Your task to perform on an android device: uninstall "Calculator" Image 0: 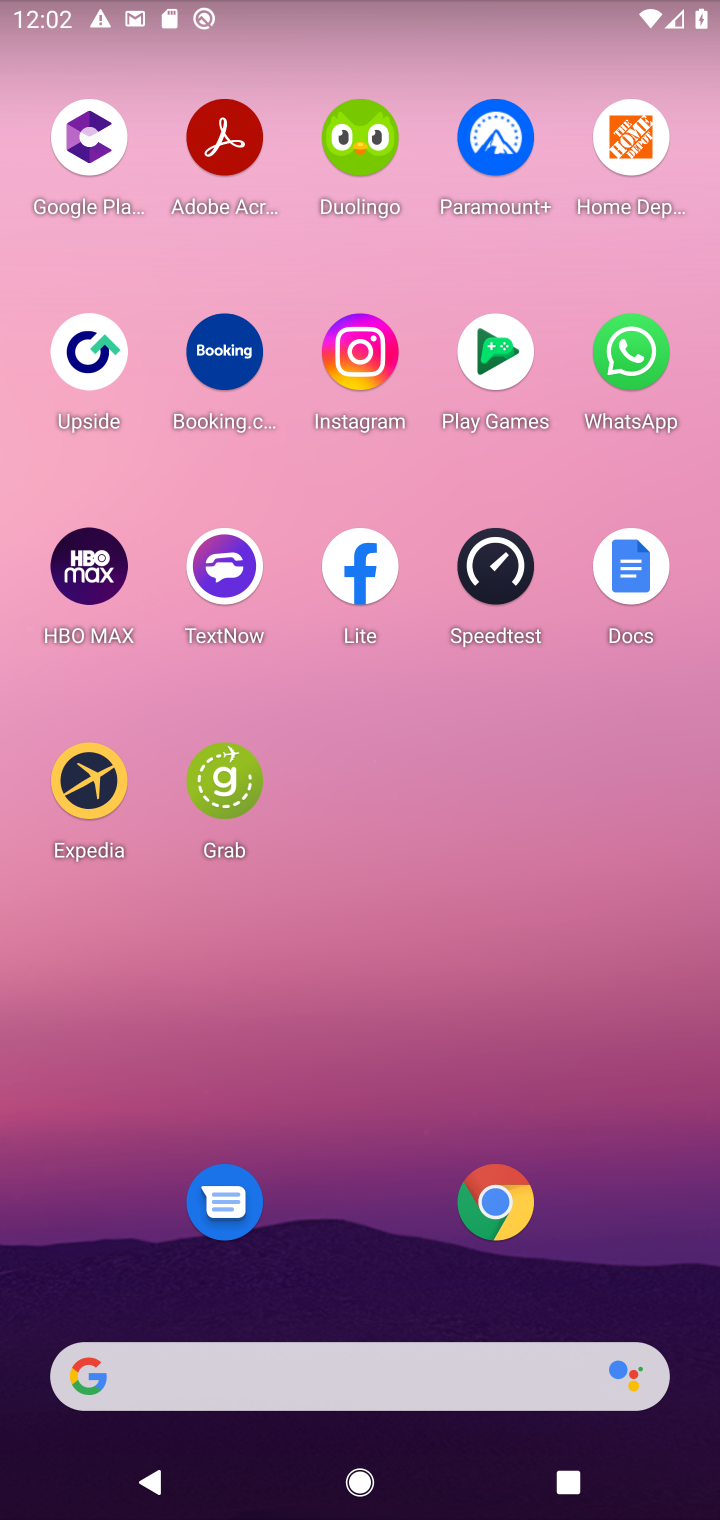
Step 0: drag from (387, 902) to (389, 113)
Your task to perform on an android device: uninstall "Calculator" Image 1: 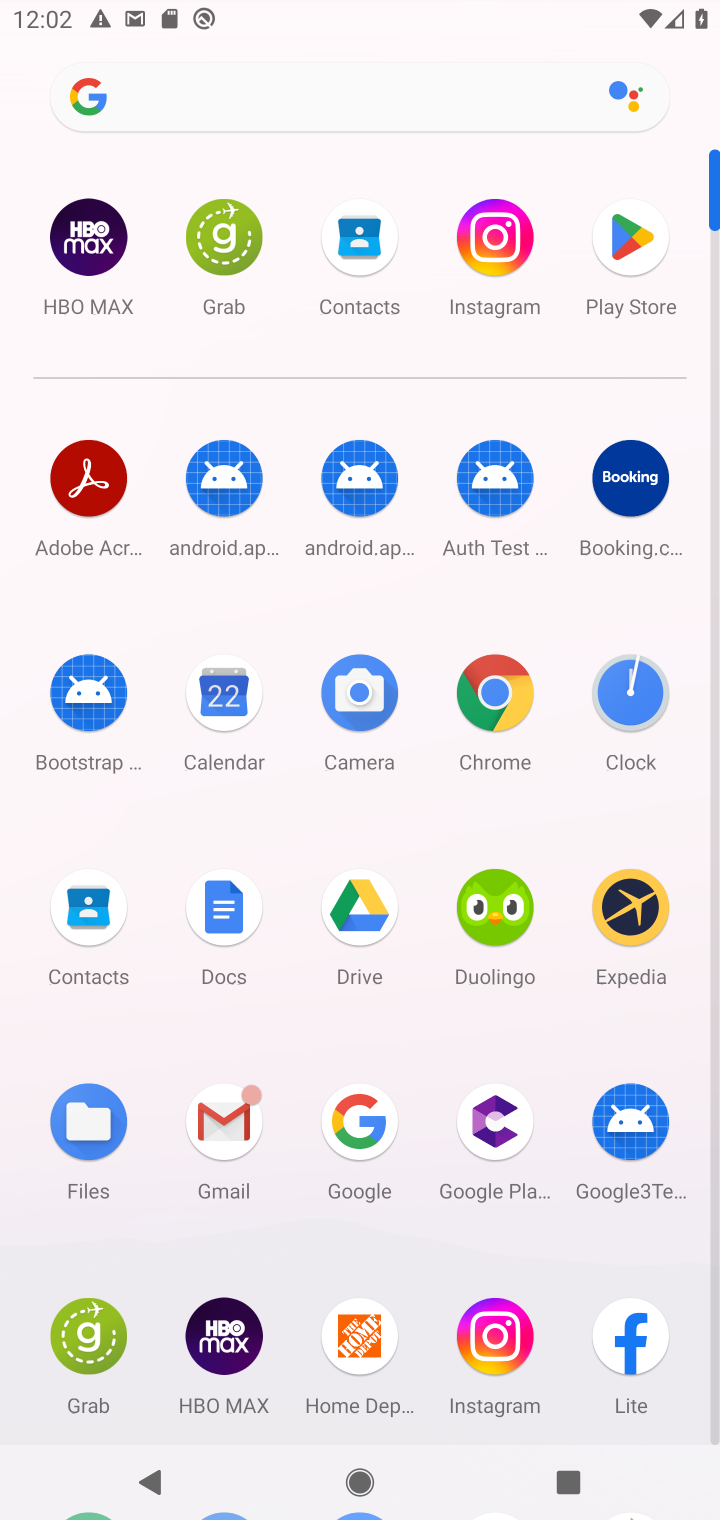
Step 1: click (629, 241)
Your task to perform on an android device: uninstall "Calculator" Image 2: 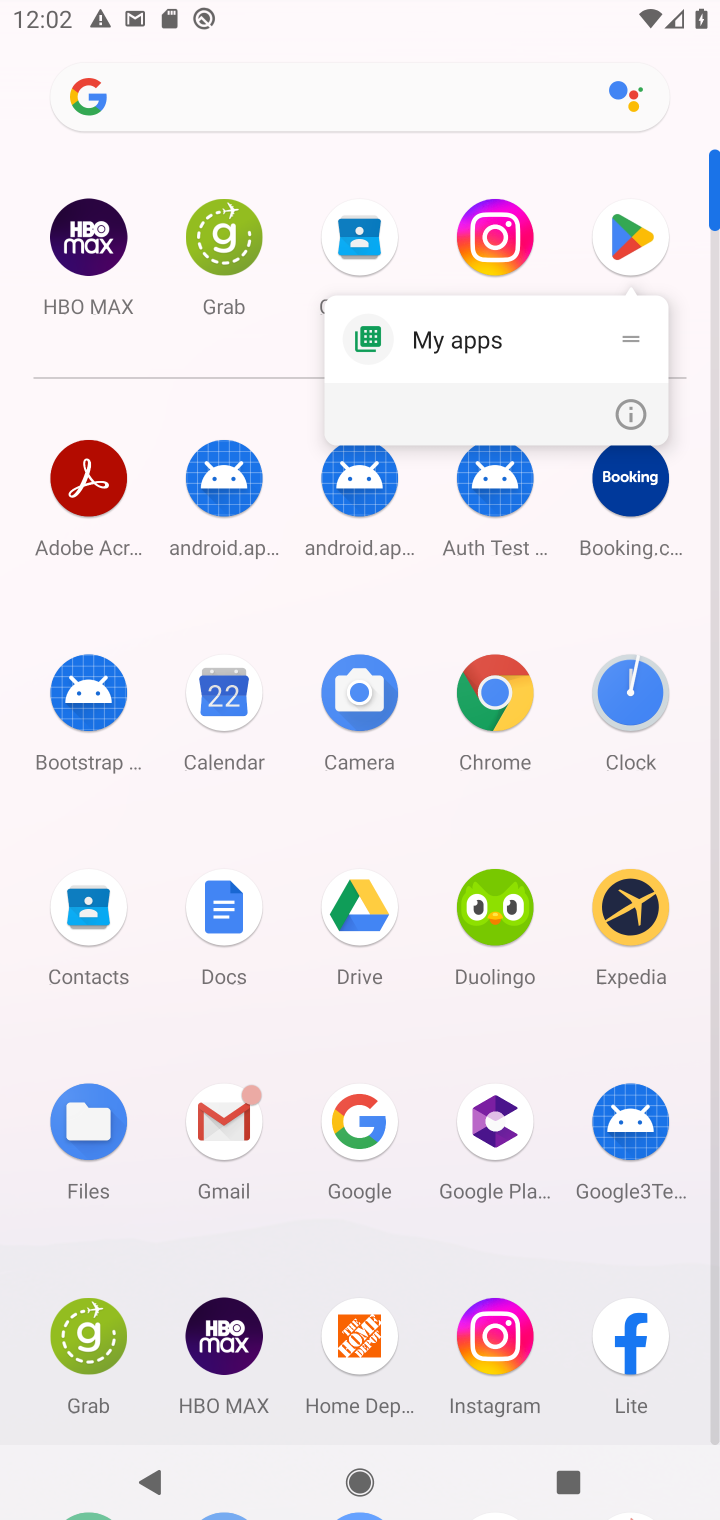
Step 2: click (626, 249)
Your task to perform on an android device: uninstall "Calculator" Image 3: 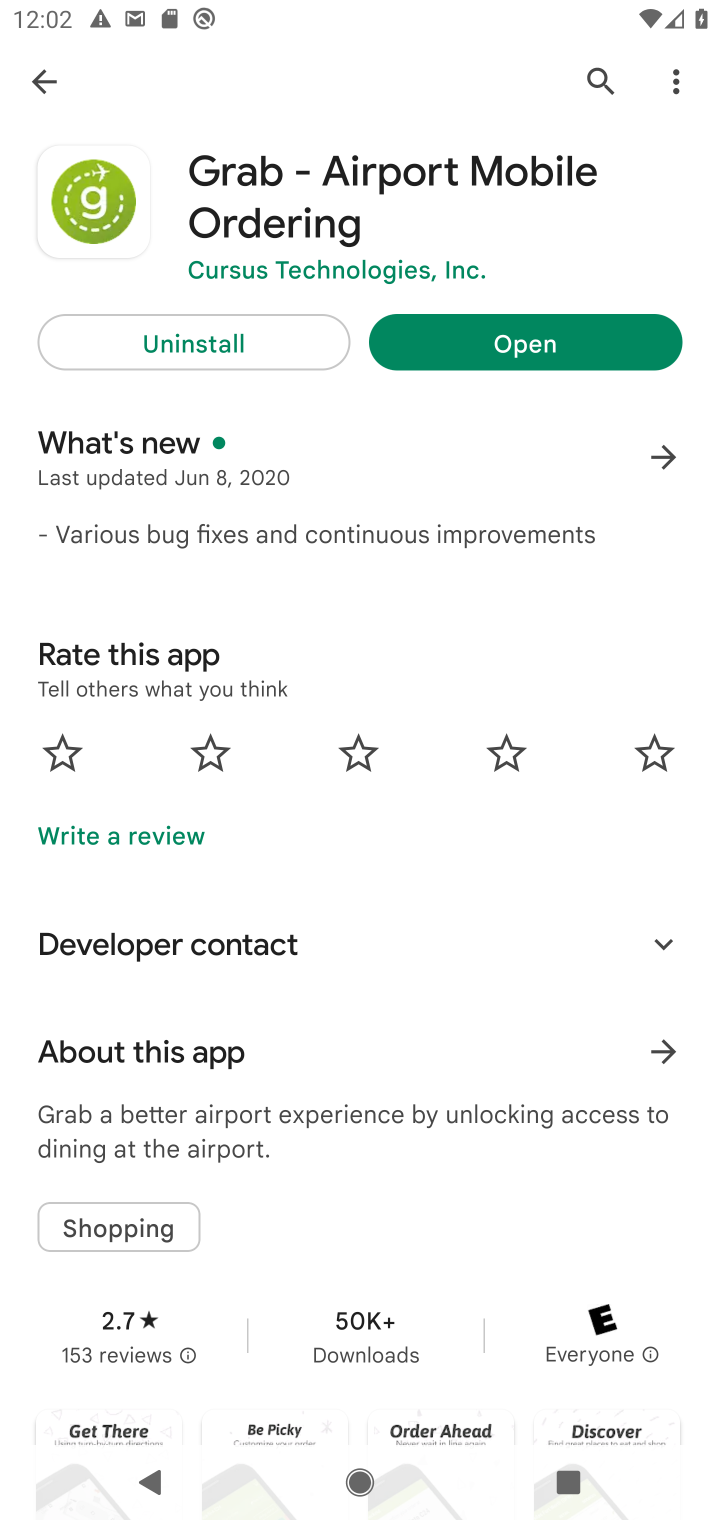
Step 3: click (591, 66)
Your task to perform on an android device: uninstall "Calculator" Image 4: 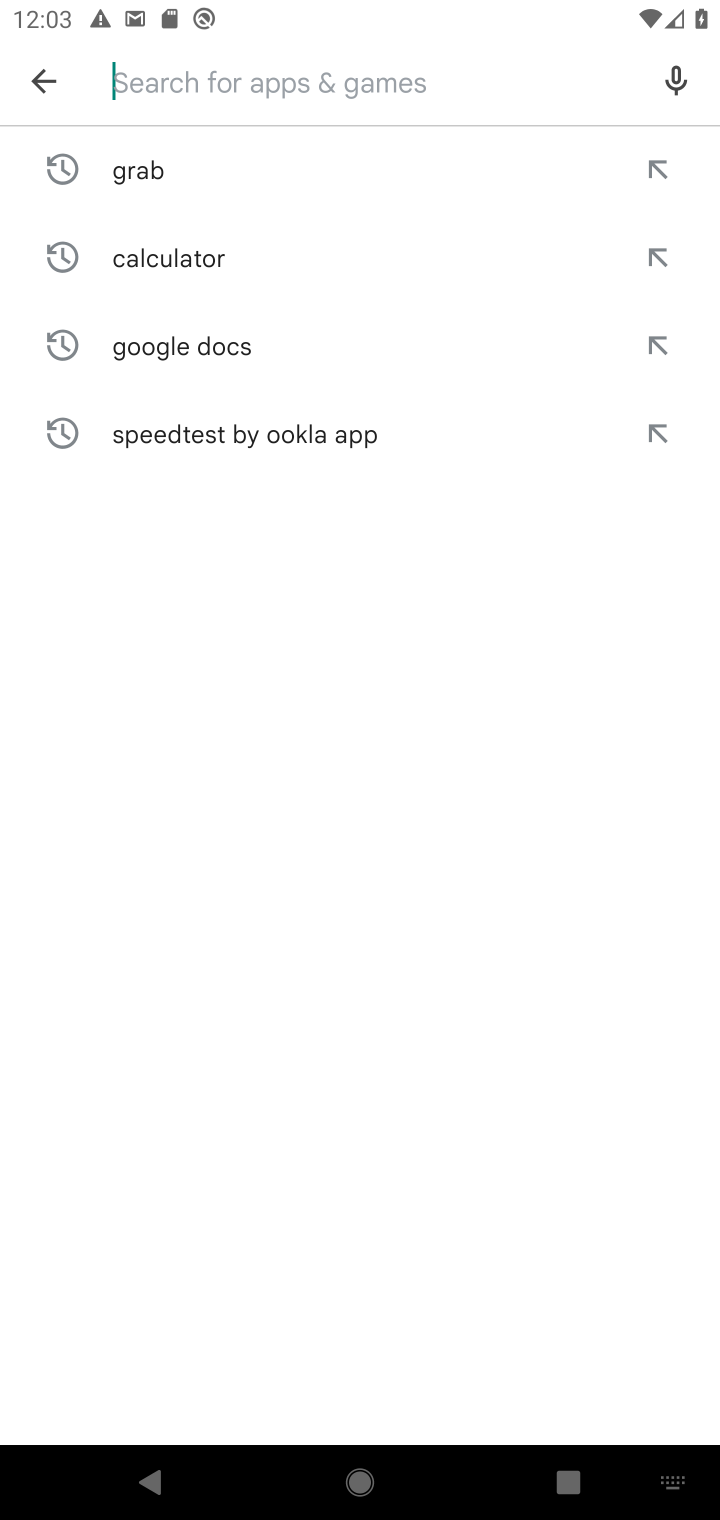
Step 4: type "Calculator"
Your task to perform on an android device: uninstall "Calculator" Image 5: 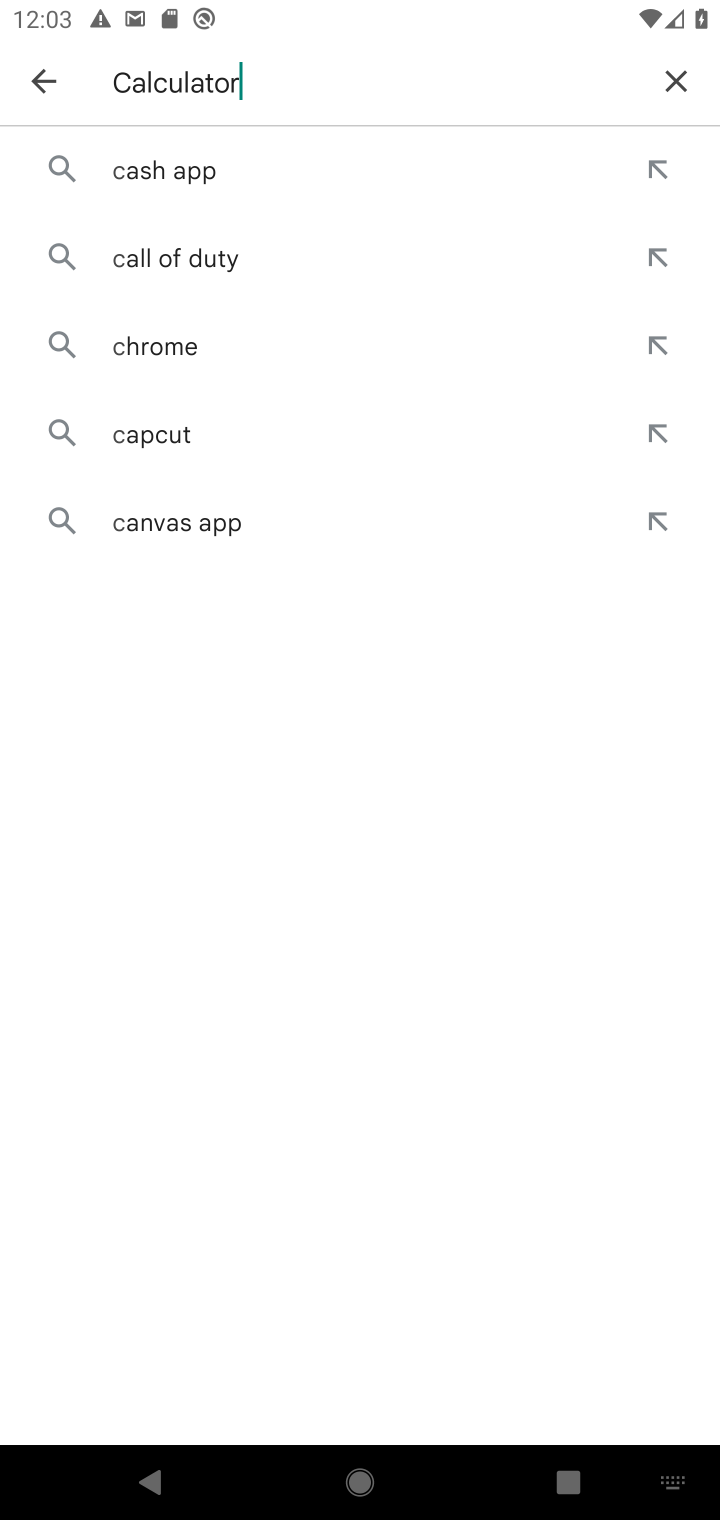
Step 5: type ""
Your task to perform on an android device: uninstall "Calculator" Image 6: 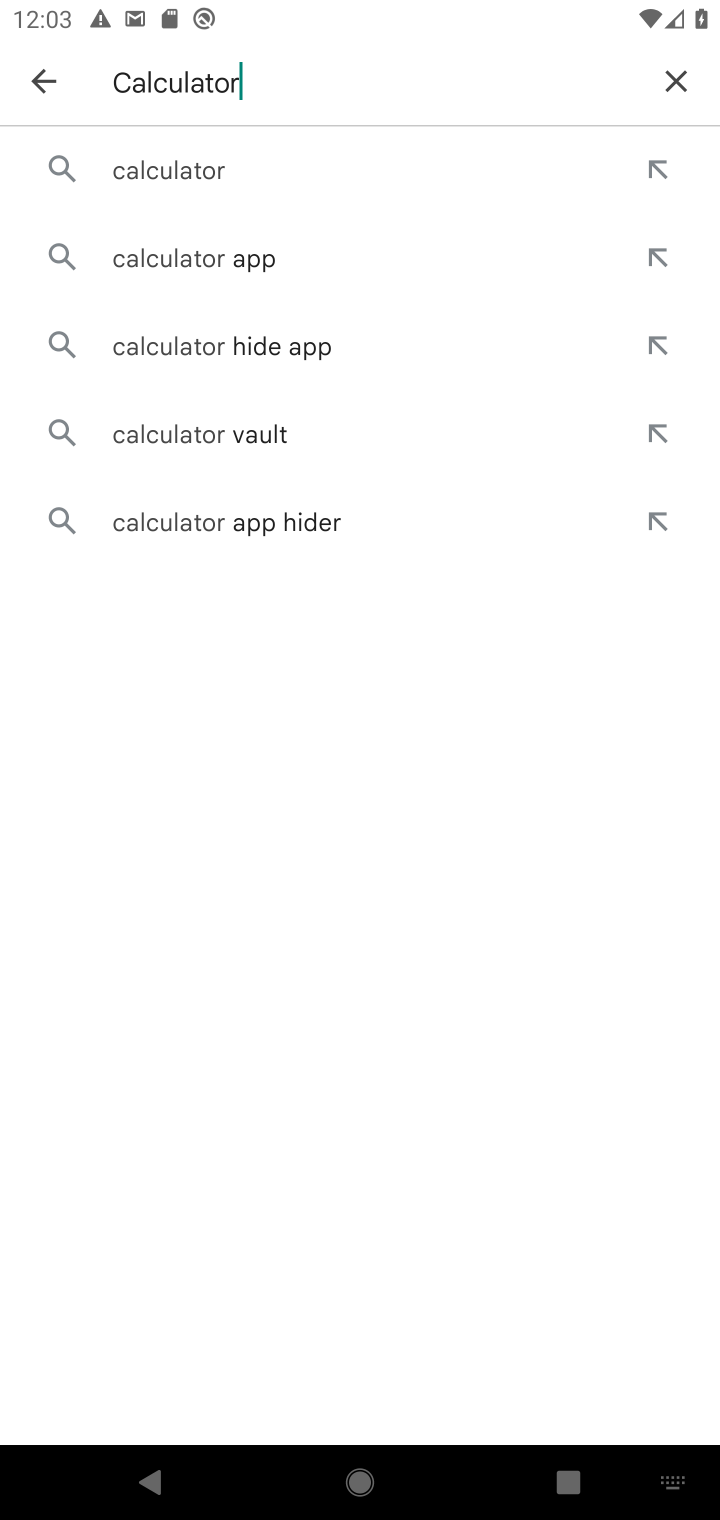
Step 6: click (192, 170)
Your task to perform on an android device: uninstall "Calculator" Image 7: 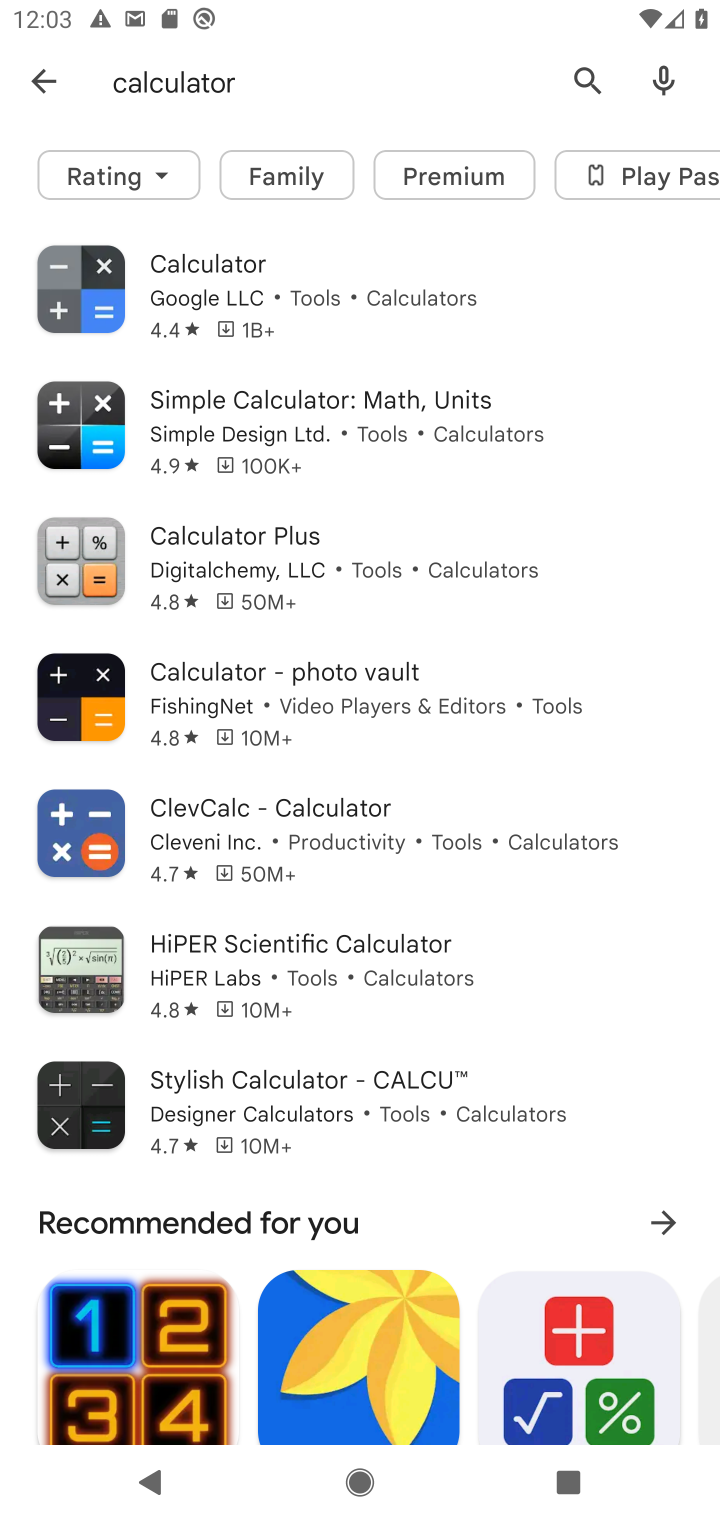
Step 7: click (200, 265)
Your task to perform on an android device: uninstall "Calculator" Image 8: 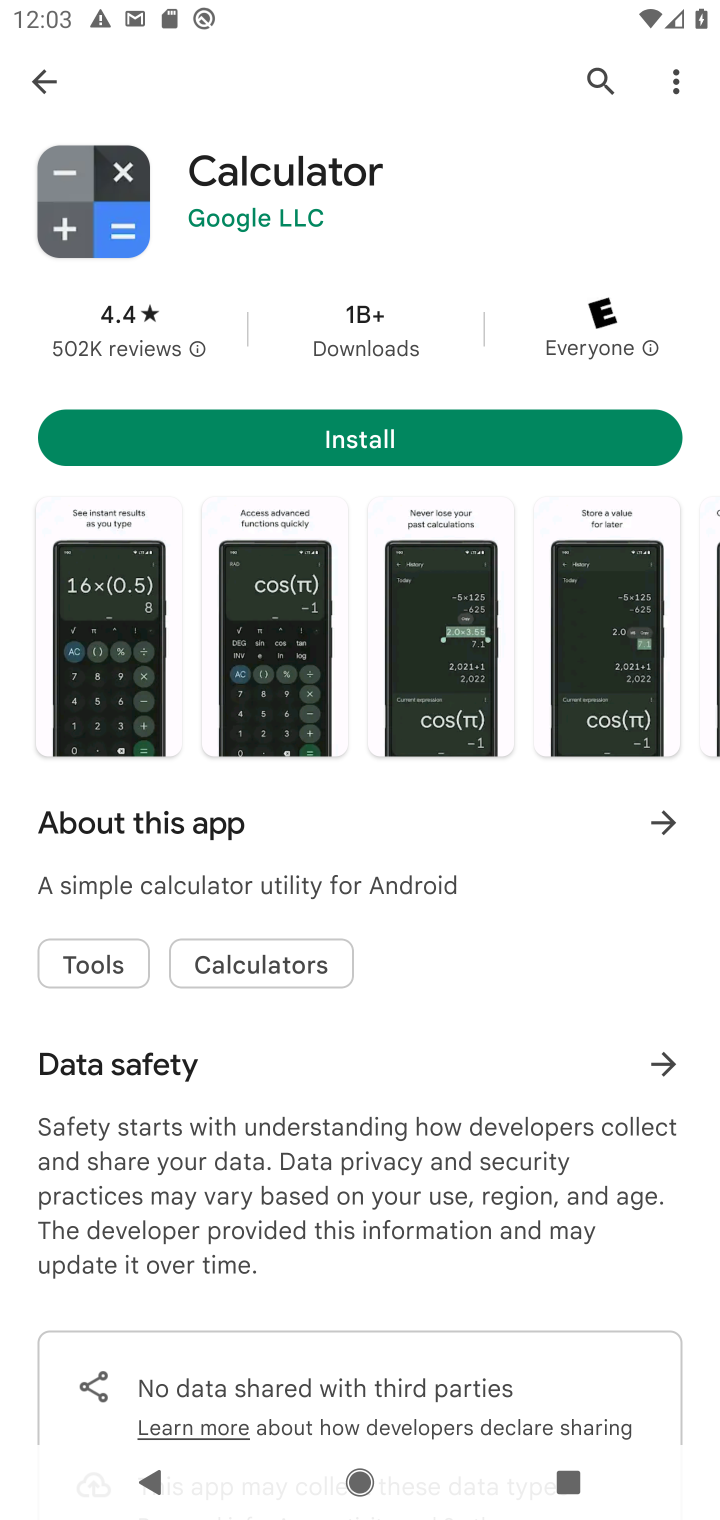
Step 8: task complete